Your task to perform on an android device: Add "razer blade" to the cart on bestbuy.com Image 0: 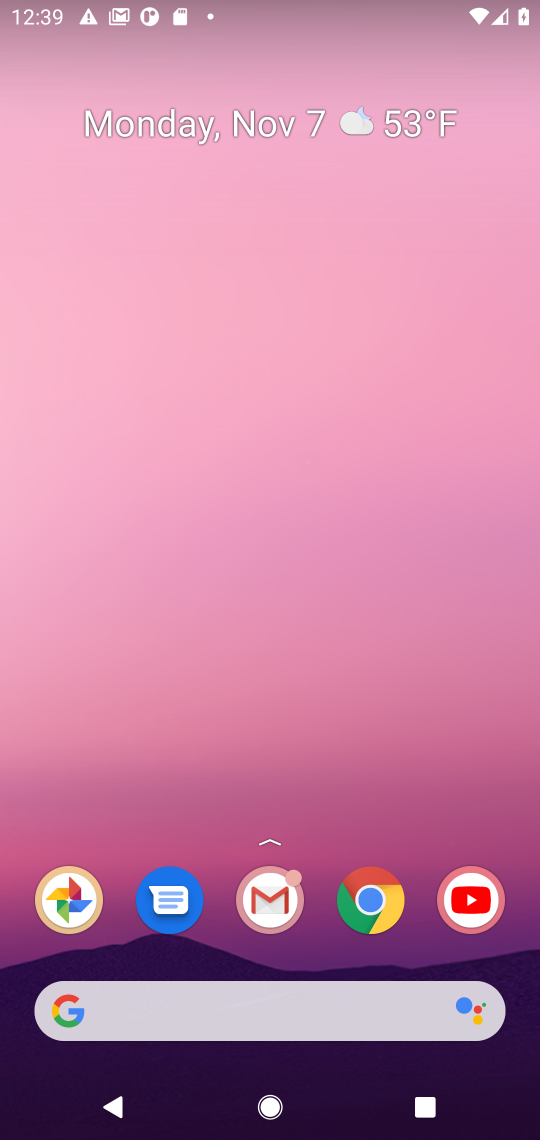
Step 0: click (330, 1003)
Your task to perform on an android device: Add "razer blade" to the cart on bestbuy.com Image 1: 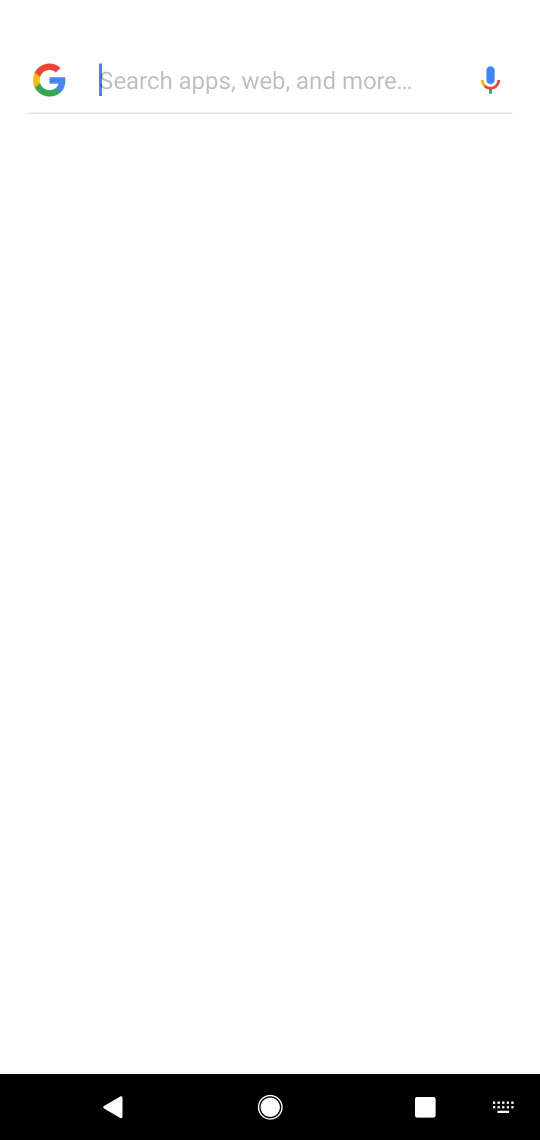
Step 1: type "bestbuy"
Your task to perform on an android device: Add "razer blade" to the cart on bestbuy.com Image 2: 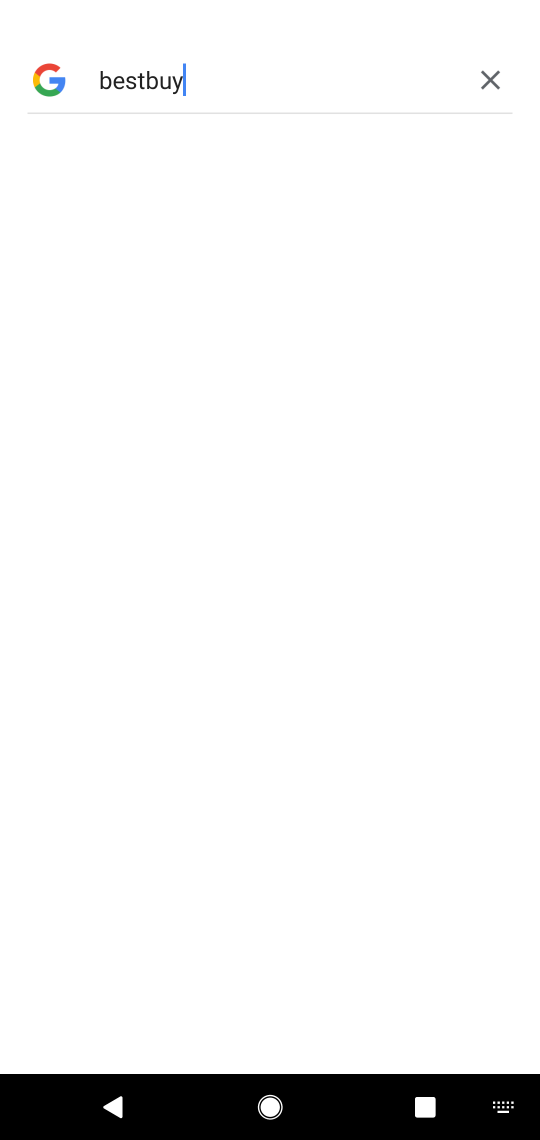
Step 2: task complete